Your task to perform on an android device: open device folders in google photos Image 0: 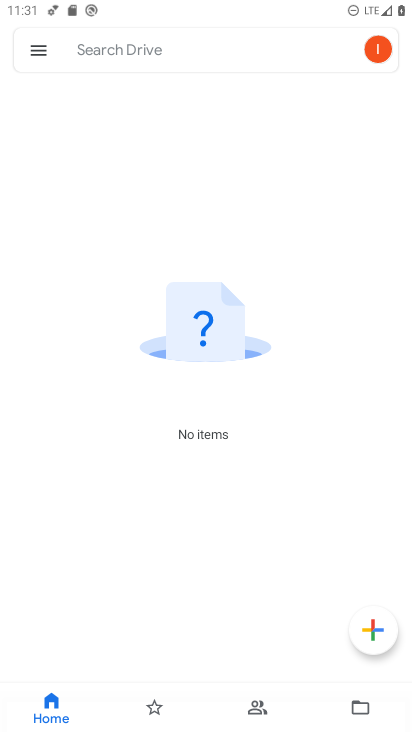
Step 0: press home button
Your task to perform on an android device: open device folders in google photos Image 1: 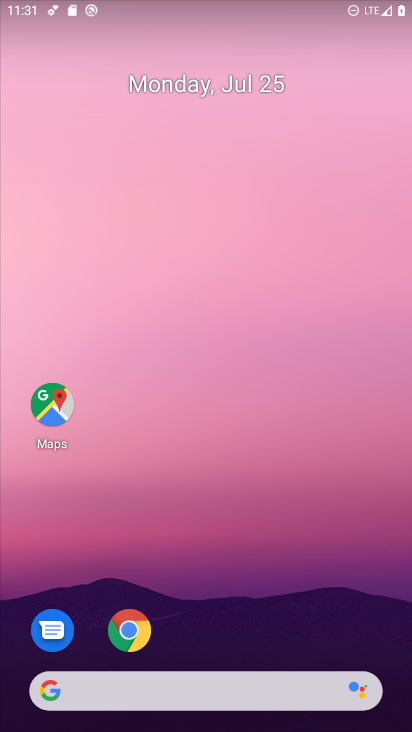
Step 1: drag from (346, 659) to (221, 19)
Your task to perform on an android device: open device folders in google photos Image 2: 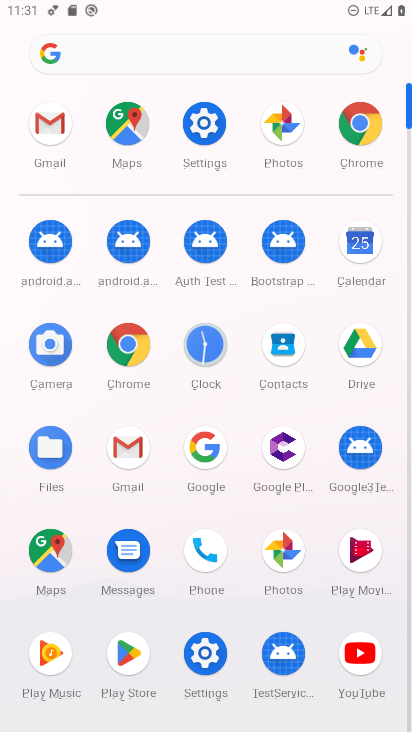
Step 2: click (278, 131)
Your task to perform on an android device: open device folders in google photos Image 3: 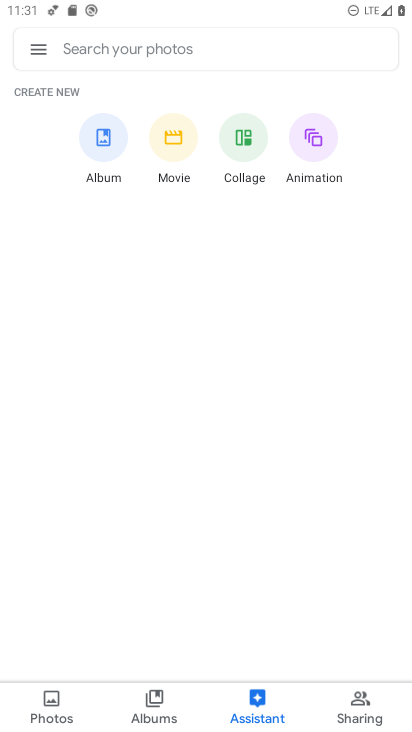
Step 3: click (36, 54)
Your task to perform on an android device: open device folders in google photos Image 4: 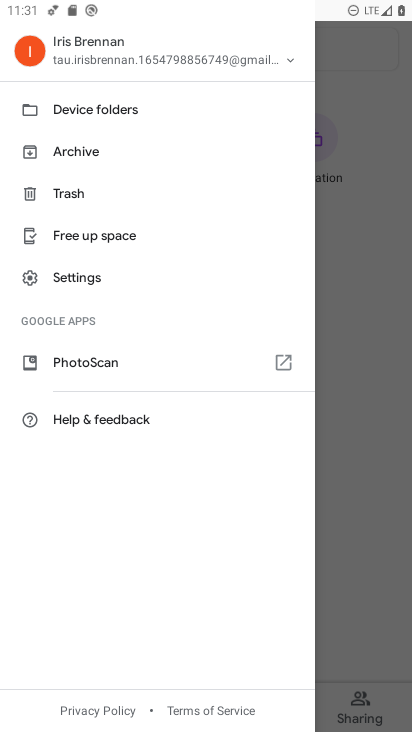
Step 4: click (46, 108)
Your task to perform on an android device: open device folders in google photos Image 5: 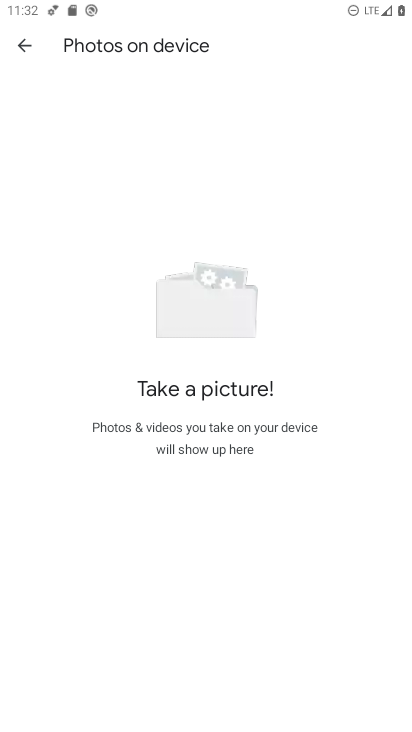
Step 5: task complete